Your task to perform on an android device: Is it going to rain tomorrow? Image 0: 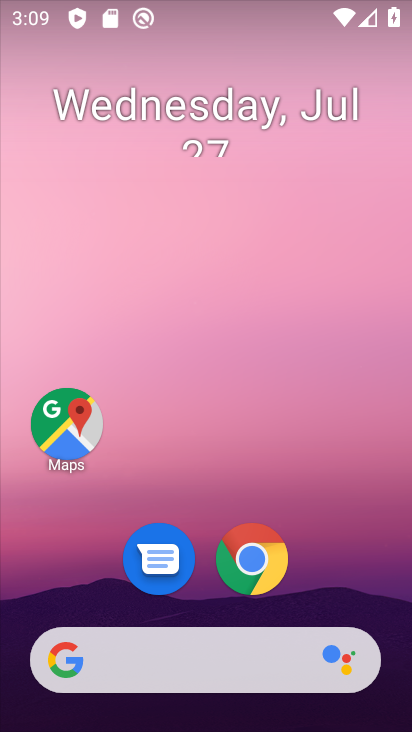
Step 0: drag from (94, 591) to (257, 7)
Your task to perform on an android device: Is it going to rain tomorrow? Image 1: 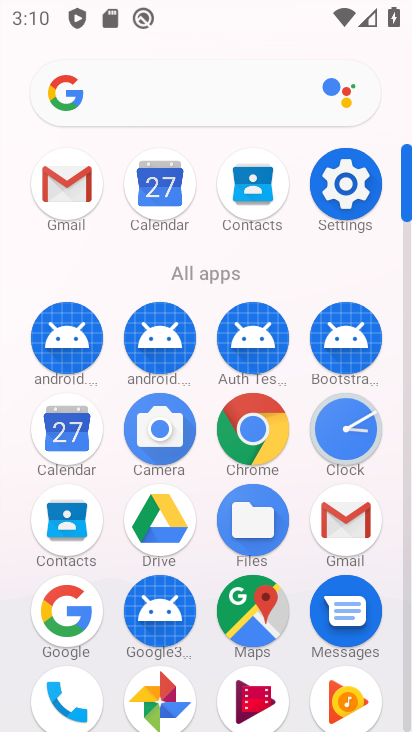
Step 1: click (228, 97)
Your task to perform on an android device: Is it going to rain tomorrow? Image 2: 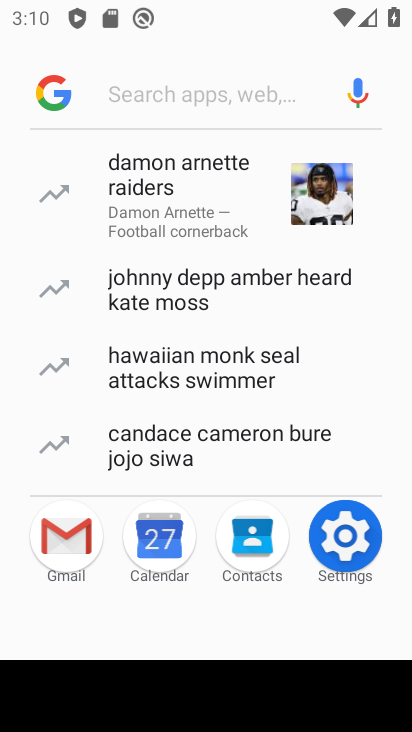
Step 2: type "weather"
Your task to perform on an android device: Is it going to rain tomorrow? Image 3: 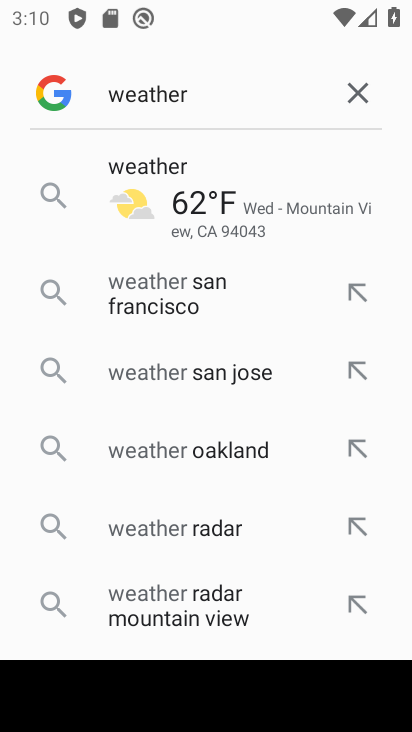
Step 3: click (249, 218)
Your task to perform on an android device: Is it going to rain tomorrow? Image 4: 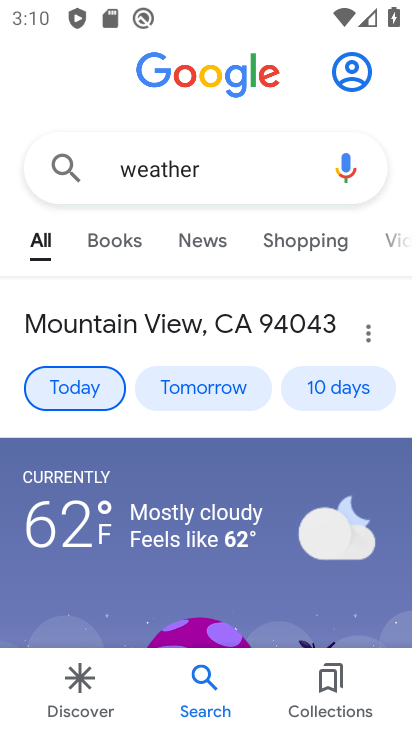
Step 4: click (194, 396)
Your task to perform on an android device: Is it going to rain tomorrow? Image 5: 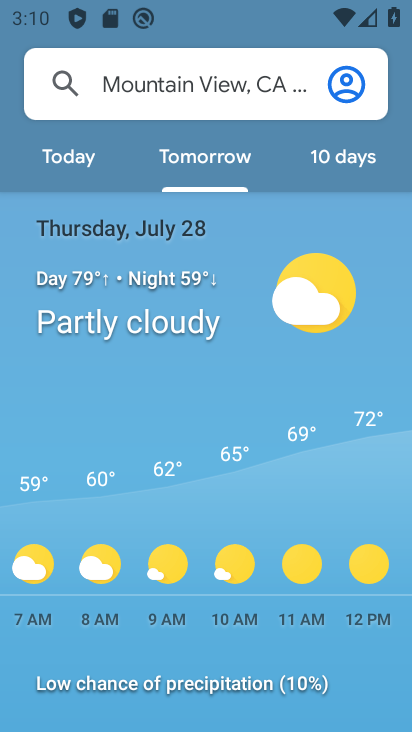
Step 5: task complete